Your task to perform on an android device: Go to Google Image 0: 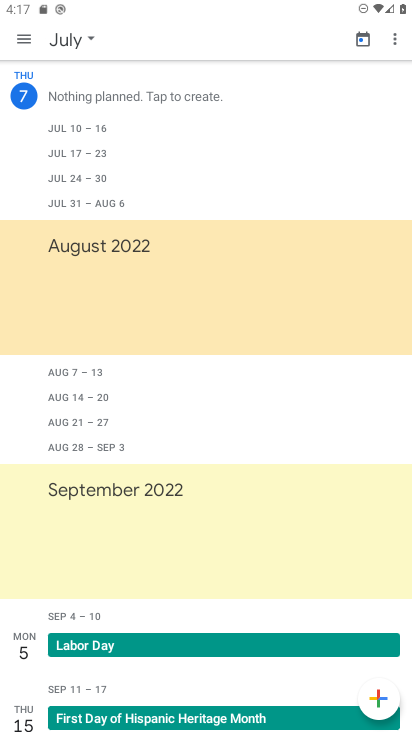
Step 0: press home button
Your task to perform on an android device: Go to Google Image 1: 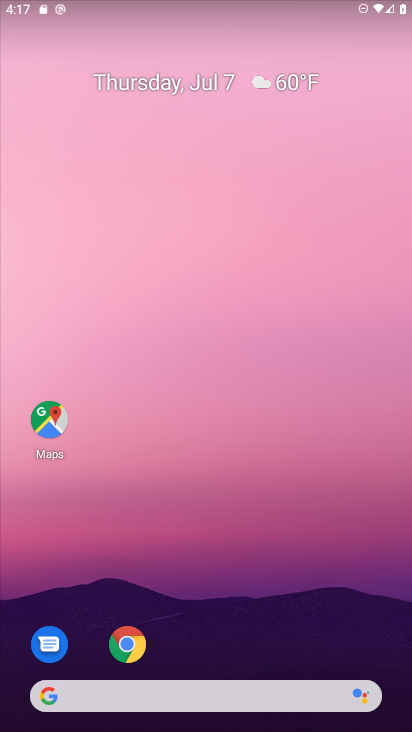
Step 1: drag from (252, 625) to (185, 166)
Your task to perform on an android device: Go to Google Image 2: 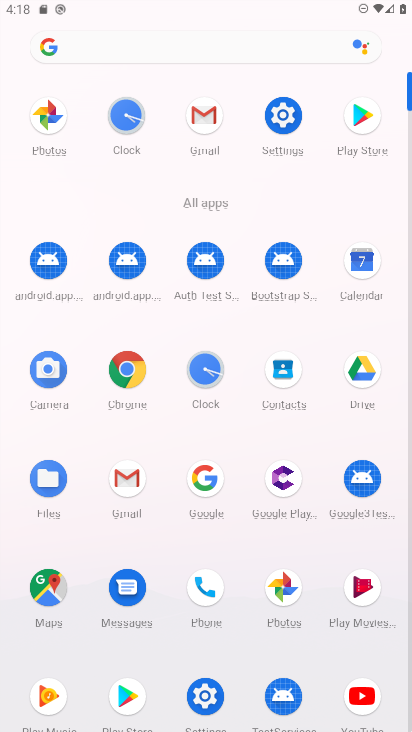
Step 2: click (130, 384)
Your task to perform on an android device: Go to Google Image 3: 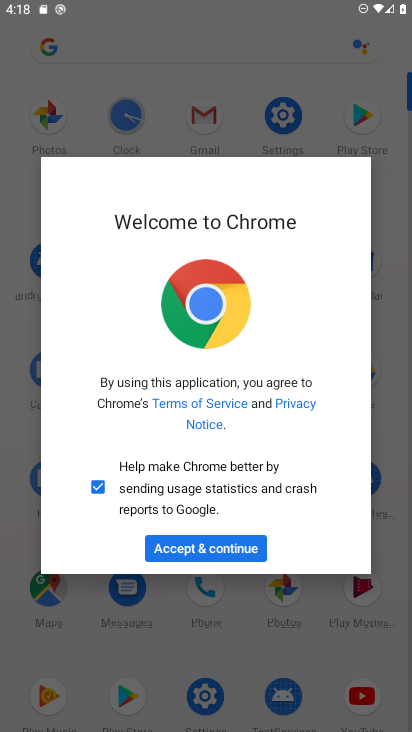
Step 3: click (208, 552)
Your task to perform on an android device: Go to Google Image 4: 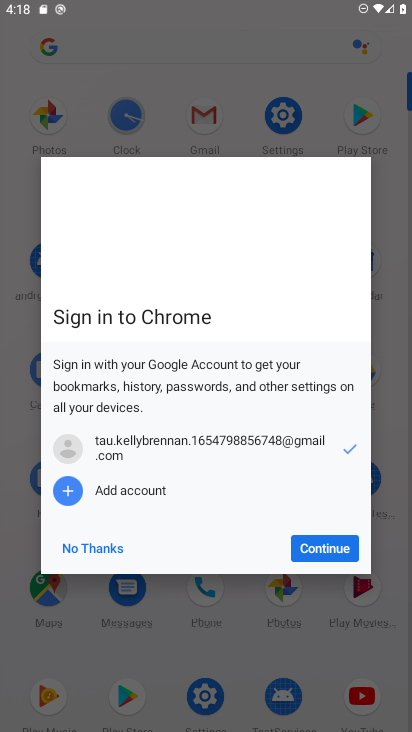
Step 4: click (345, 546)
Your task to perform on an android device: Go to Google Image 5: 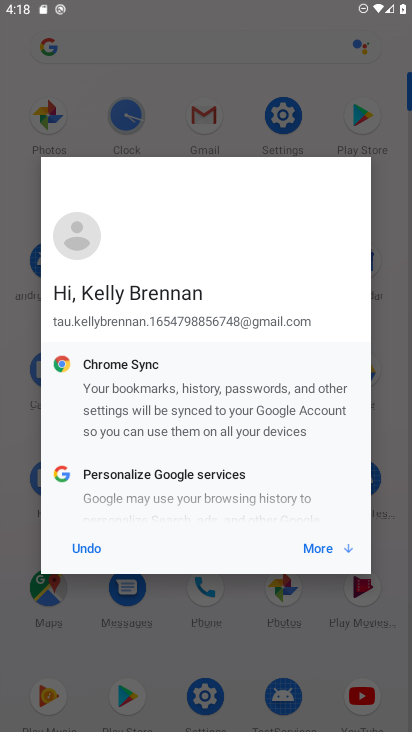
Step 5: click (330, 545)
Your task to perform on an android device: Go to Google Image 6: 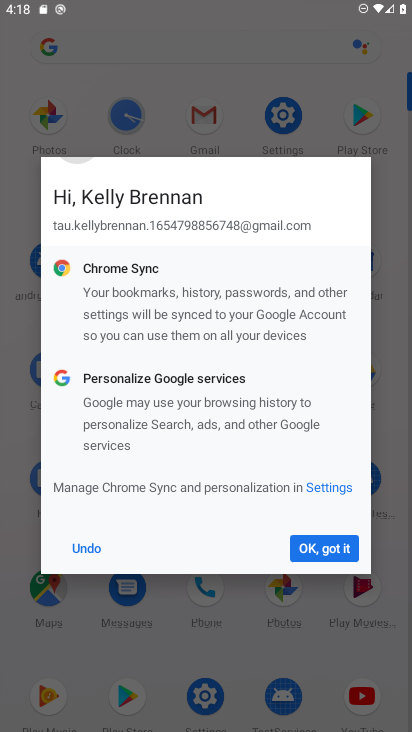
Step 6: click (341, 551)
Your task to perform on an android device: Go to Google Image 7: 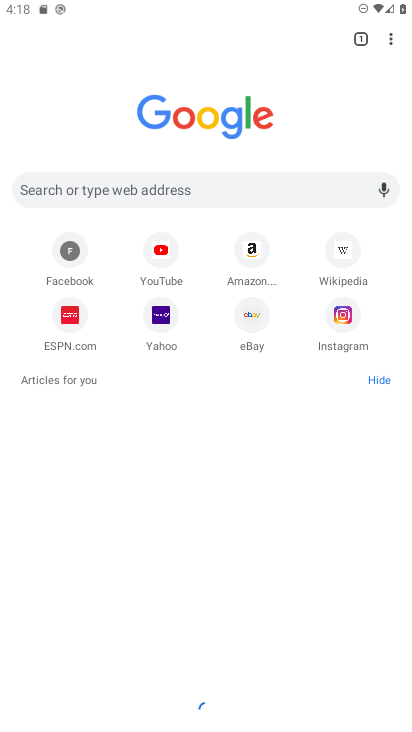
Step 7: task complete